Your task to perform on an android device: Go to privacy settings Image 0: 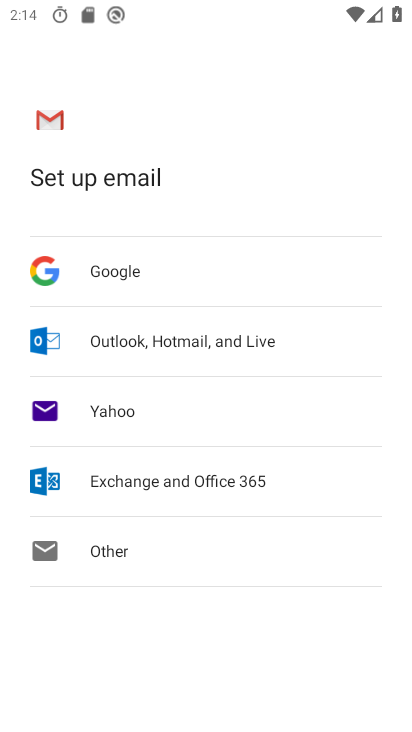
Step 0: press home button
Your task to perform on an android device: Go to privacy settings Image 1: 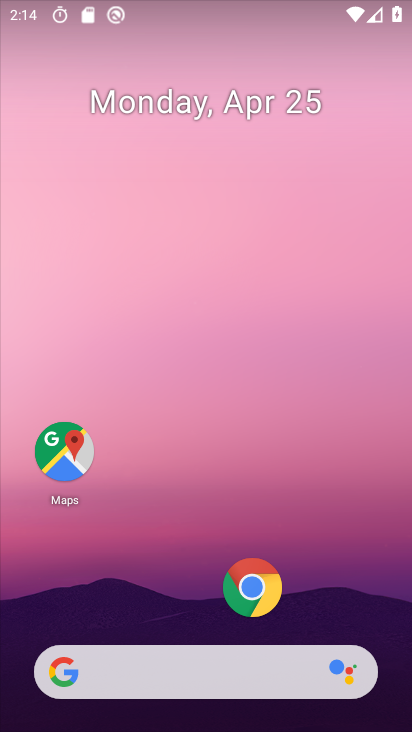
Step 1: drag from (187, 619) to (222, 71)
Your task to perform on an android device: Go to privacy settings Image 2: 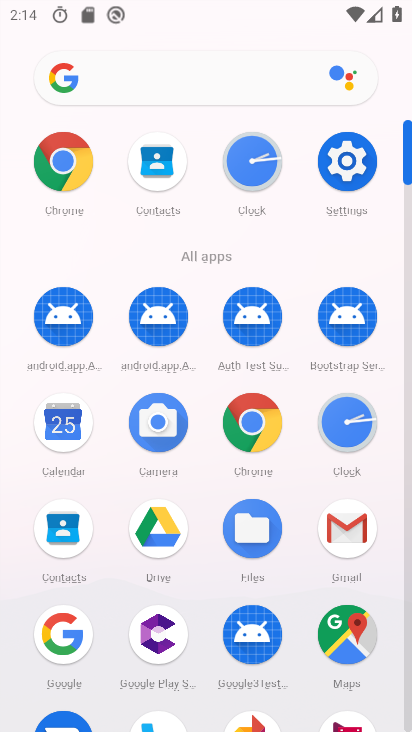
Step 2: click (343, 157)
Your task to perform on an android device: Go to privacy settings Image 3: 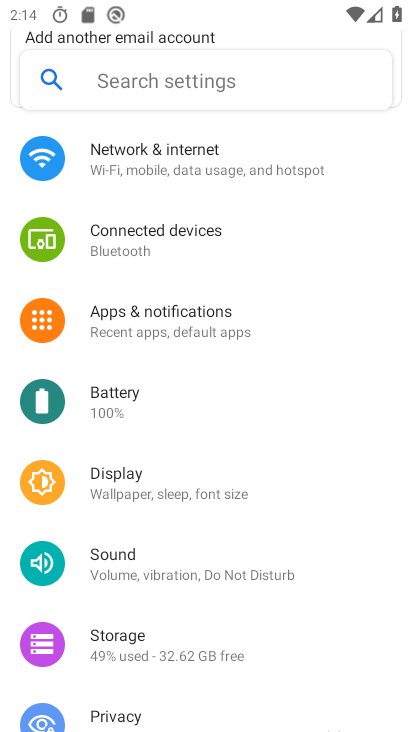
Step 3: click (142, 710)
Your task to perform on an android device: Go to privacy settings Image 4: 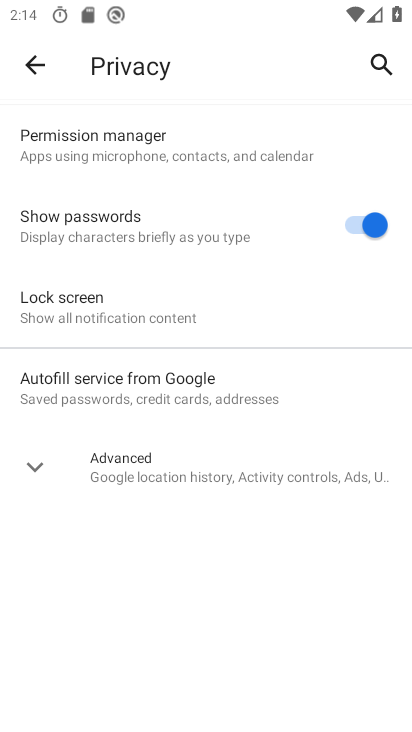
Step 4: click (28, 472)
Your task to perform on an android device: Go to privacy settings Image 5: 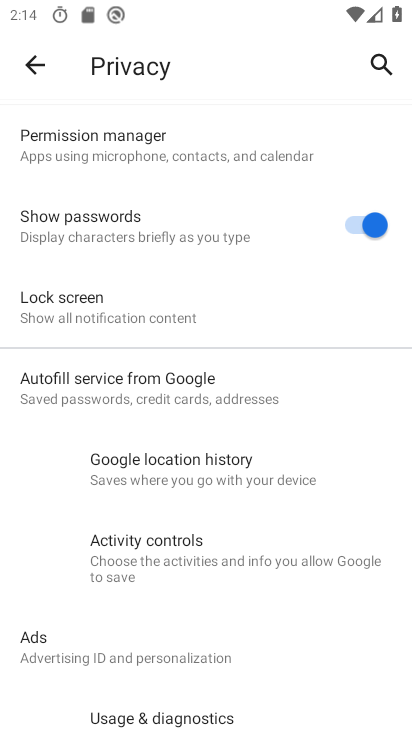
Step 5: task complete